Your task to perform on an android device: open app "Venmo" (install if not already installed) Image 0: 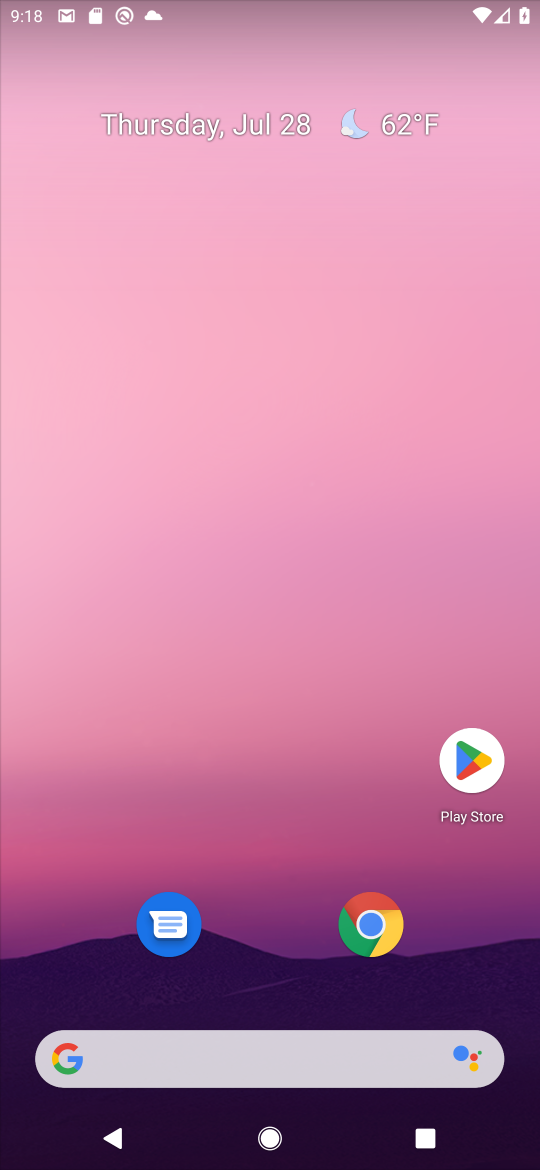
Step 0: press home button
Your task to perform on an android device: open app "Venmo" (install if not already installed) Image 1: 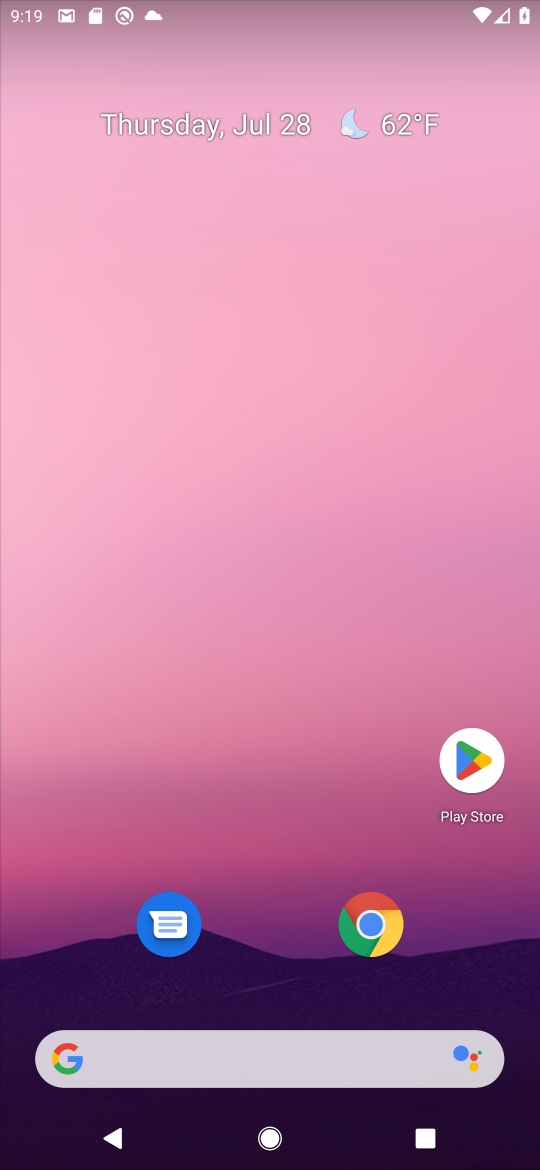
Step 1: click (460, 762)
Your task to perform on an android device: open app "Venmo" (install if not already installed) Image 2: 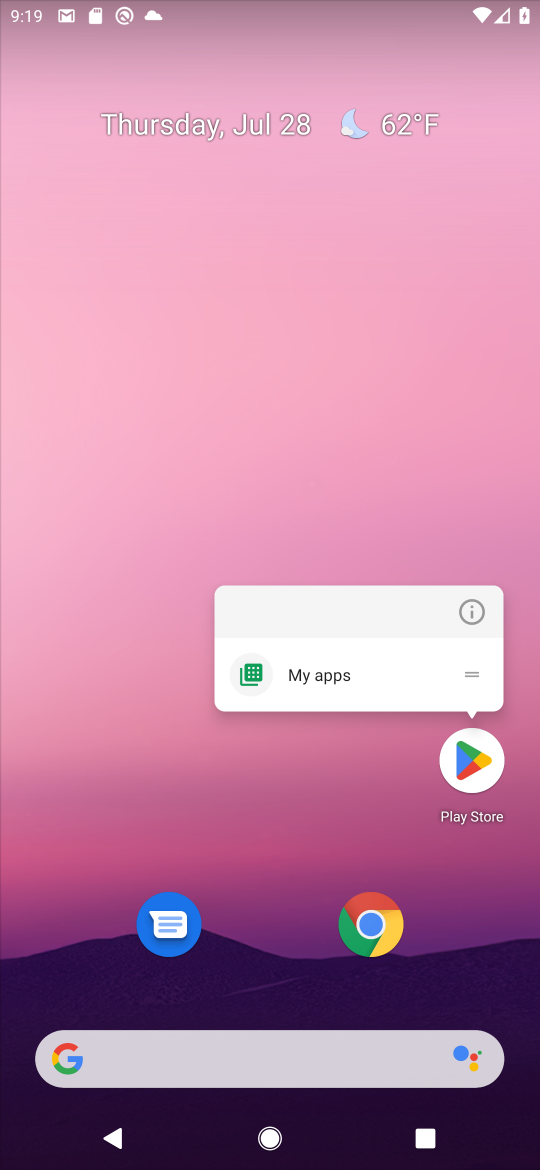
Step 2: click (461, 770)
Your task to perform on an android device: open app "Venmo" (install if not already installed) Image 3: 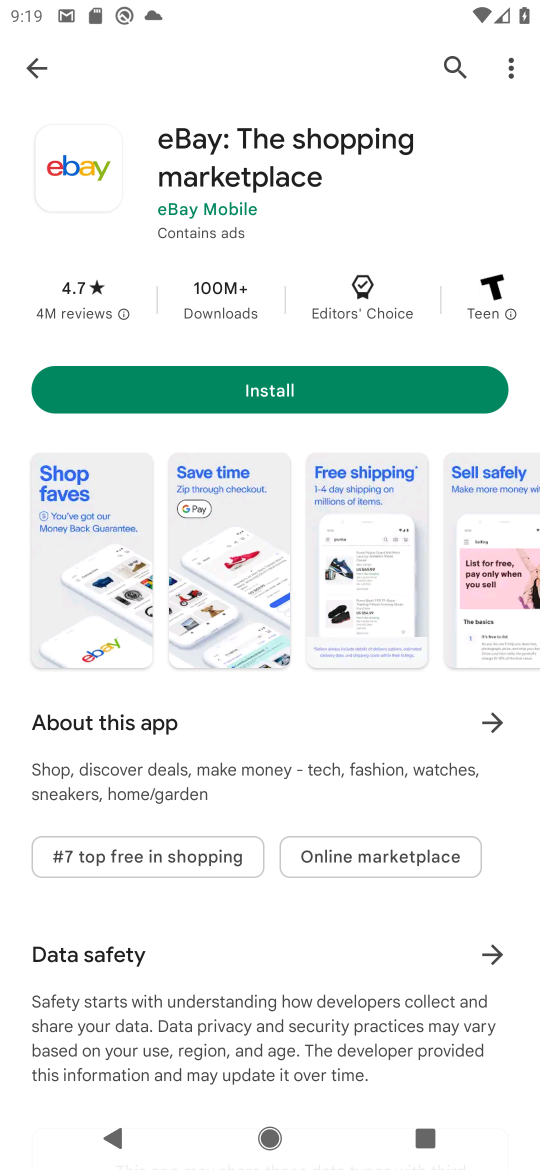
Step 3: click (446, 50)
Your task to perform on an android device: open app "Venmo" (install if not already installed) Image 4: 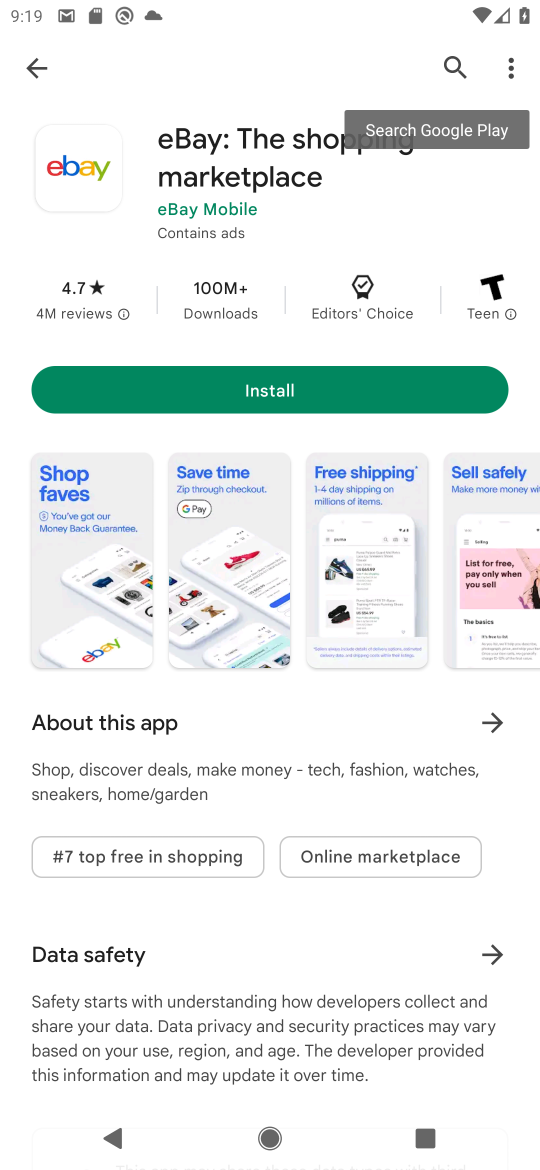
Step 4: click (450, 60)
Your task to perform on an android device: open app "Venmo" (install if not already installed) Image 5: 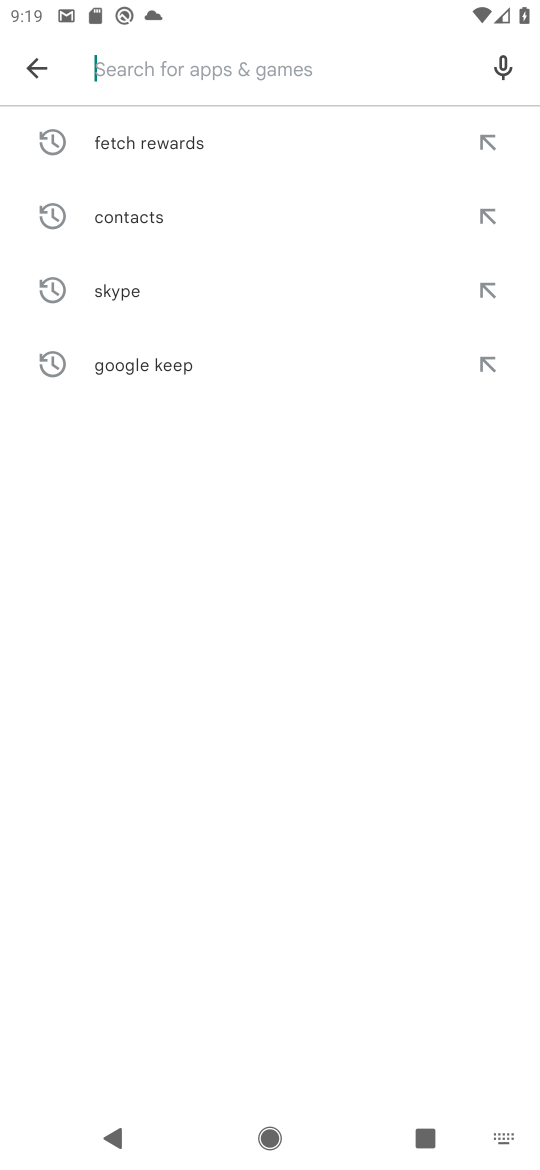
Step 5: click (28, 56)
Your task to perform on an android device: open app "Venmo" (install if not already installed) Image 6: 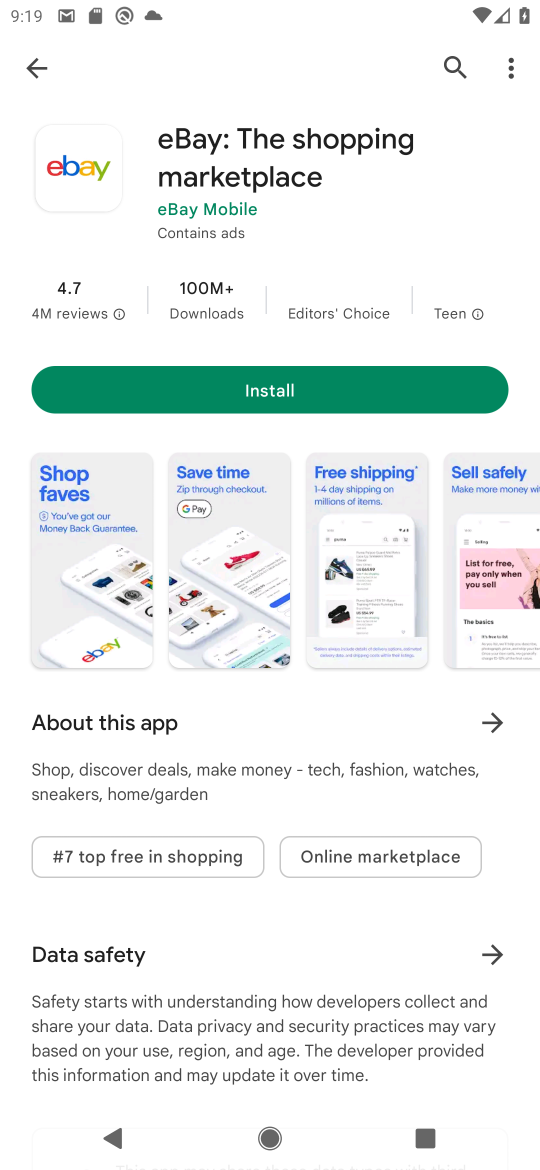
Step 6: click (302, 54)
Your task to perform on an android device: open app "Venmo" (install if not already installed) Image 7: 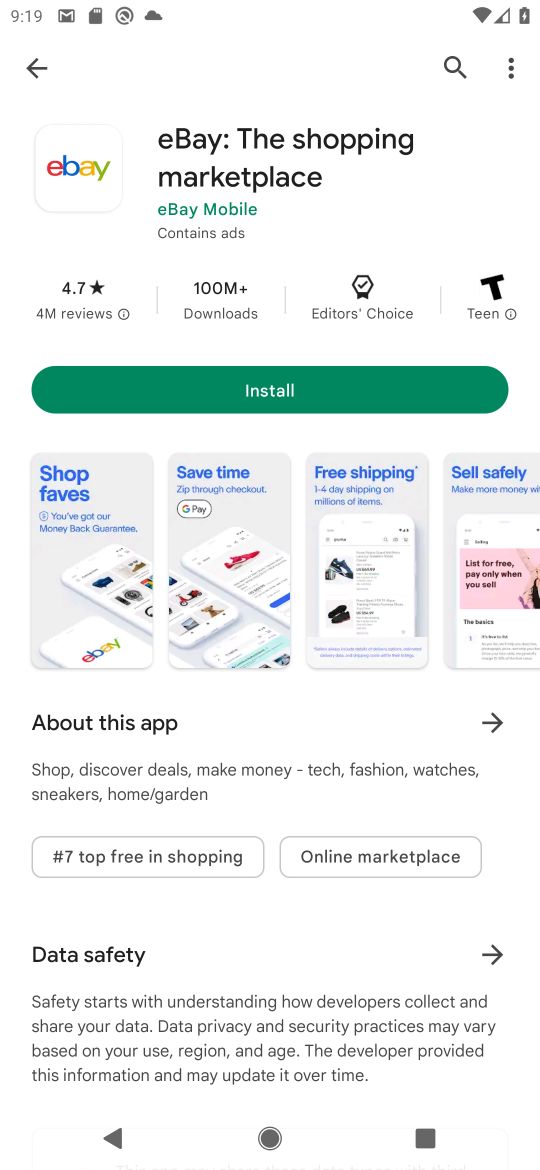
Step 7: click (31, 61)
Your task to perform on an android device: open app "Venmo" (install if not already installed) Image 8: 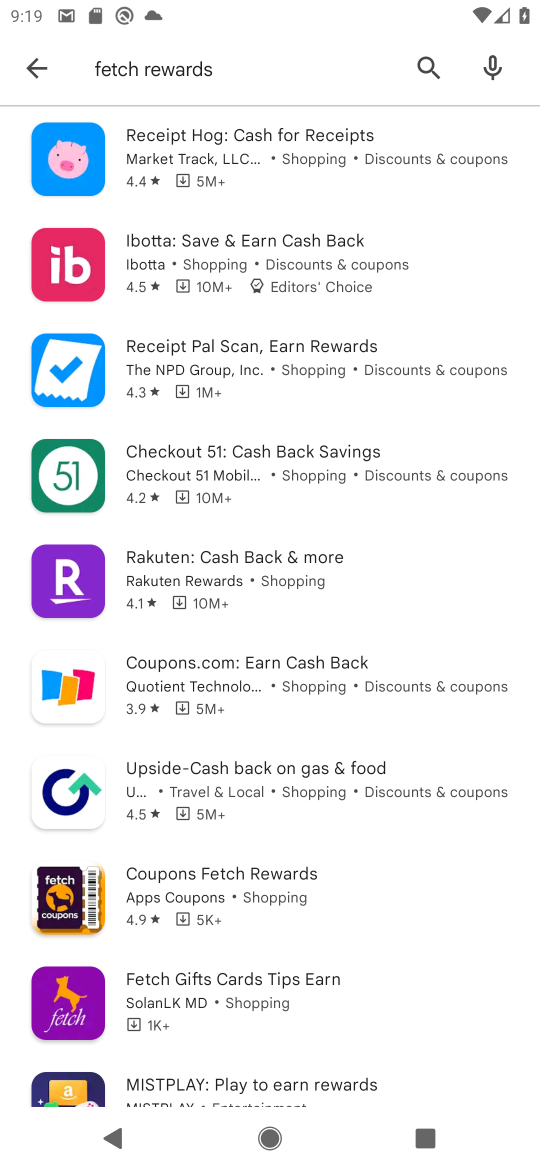
Step 8: click (429, 54)
Your task to perform on an android device: open app "Venmo" (install if not already installed) Image 9: 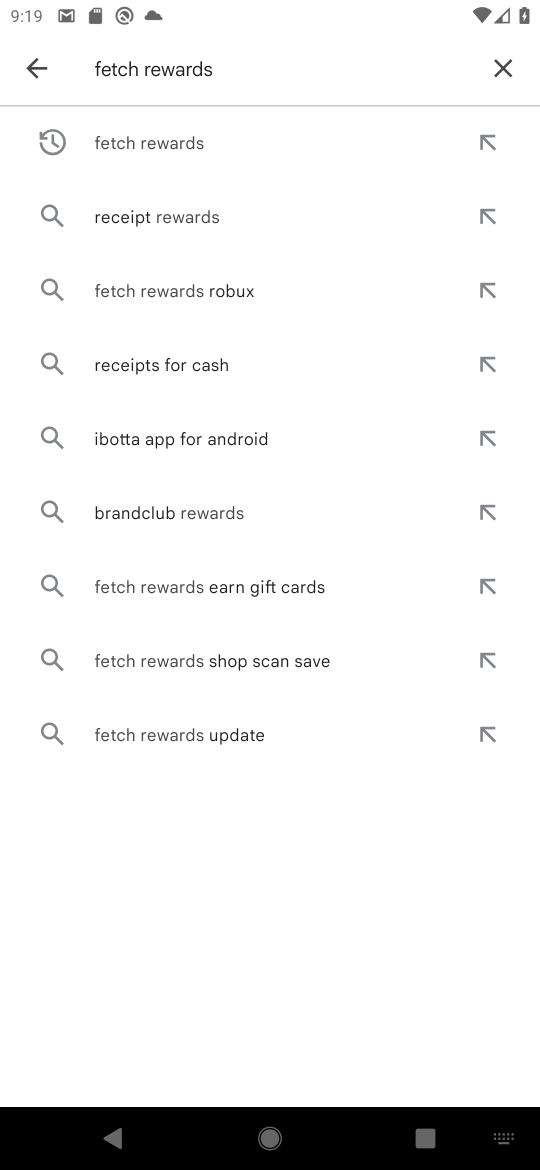
Step 9: click (499, 67)
Your task to perform on an android device: open app "Venmo" (install if not already installed) Image 10: 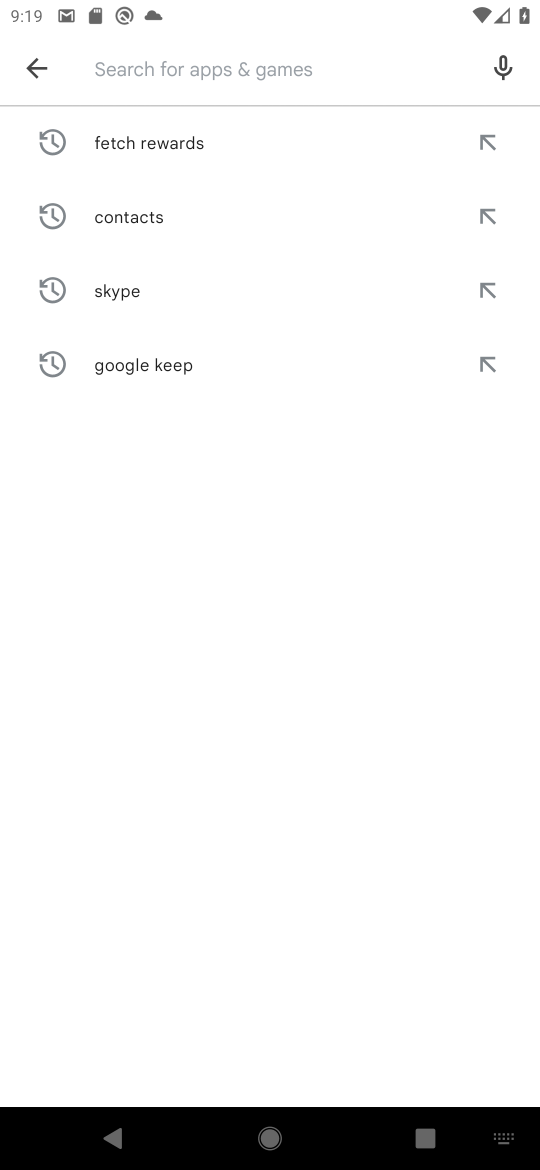
Step 10: type "Venmo"
Your task to perform on an android device: open app "Venmo" (install if not already installed) Image 11: 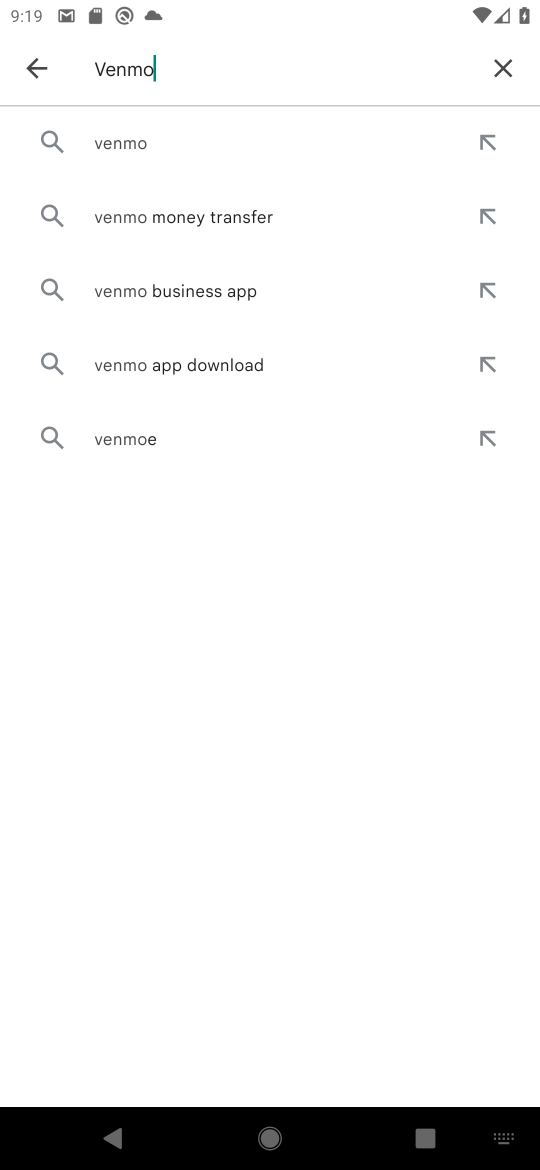
Step 11: click (147, 146)
Your task to perform on an android device: open app "Venmo" (install if not already installed) Image 12: 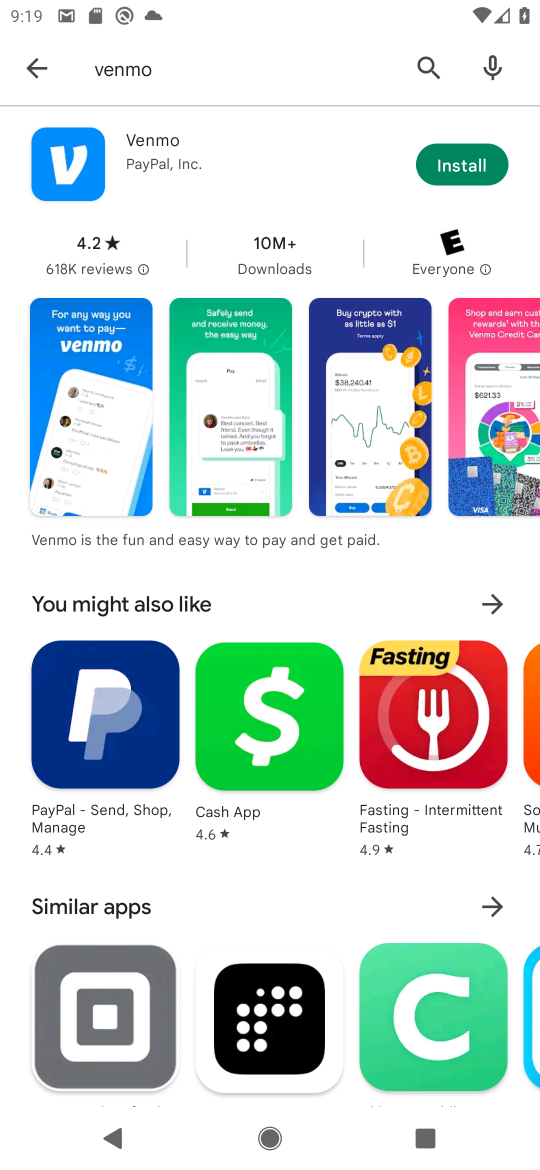
Step 12: click (459, 167)
Your task to perform on an android device: open app "Venmo" (install if not already installed) Image 13: 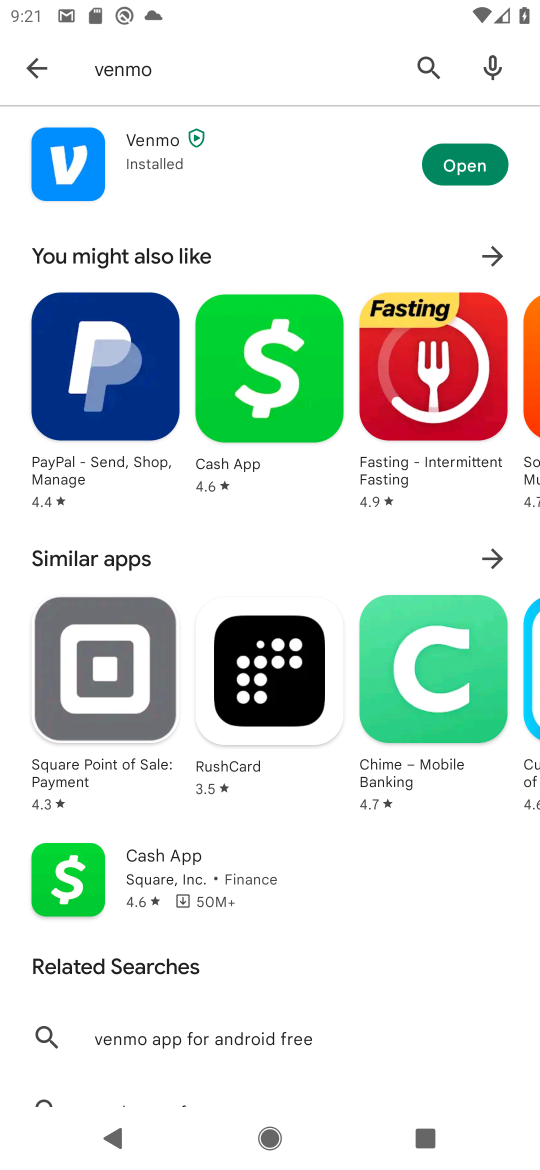
Step 13: click (447, 169)
Your task to perform on an android device: open app "Venmo" (install if not already installed) Image 14: 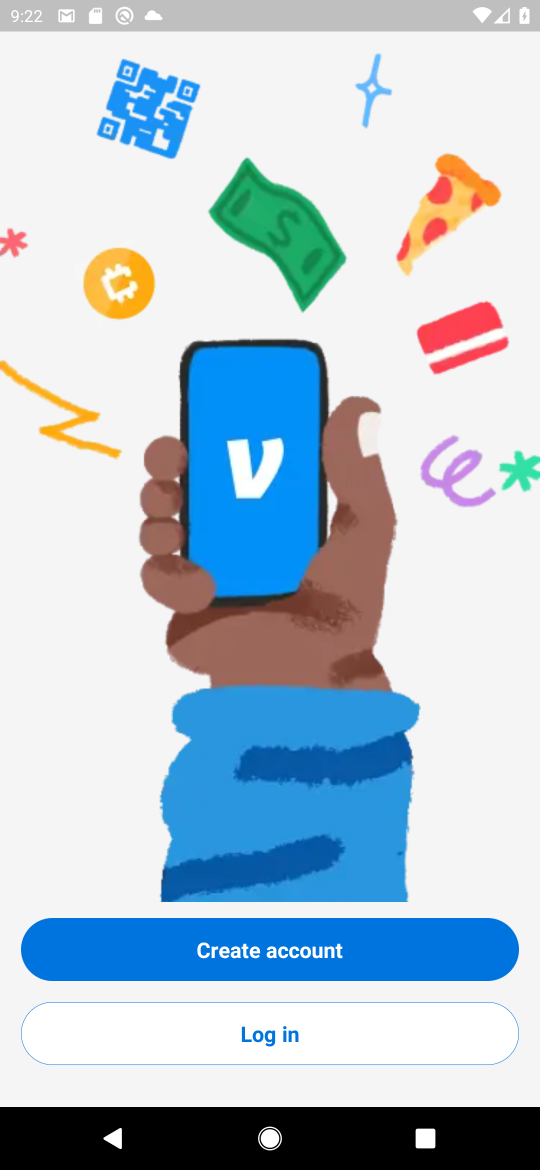
Step 14: task complete